Your task to perform on an android device: Check the weather Image 0: 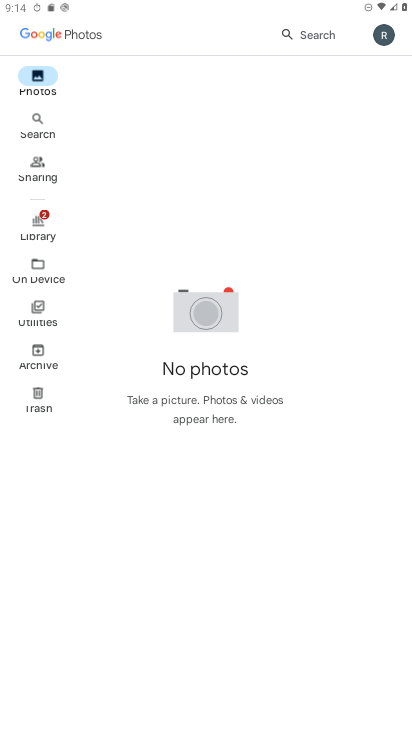
Step 0: press home button
Your task to perform on an android device: Check the weather Image 1: 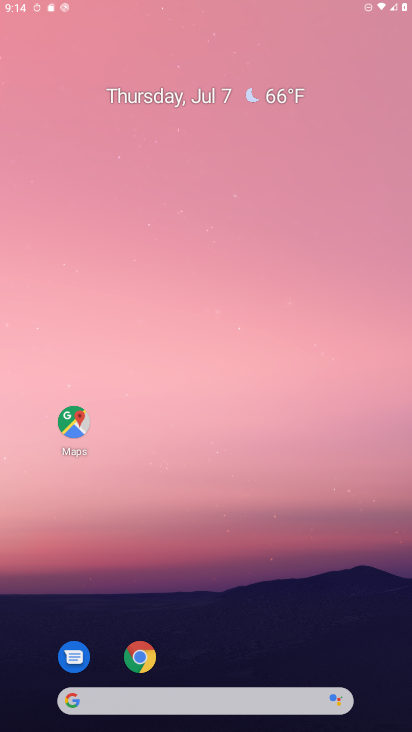
Step 1: drag from (391, 710) to (147, 8)
Your task to perform on an android device: Check the weather Image 2: 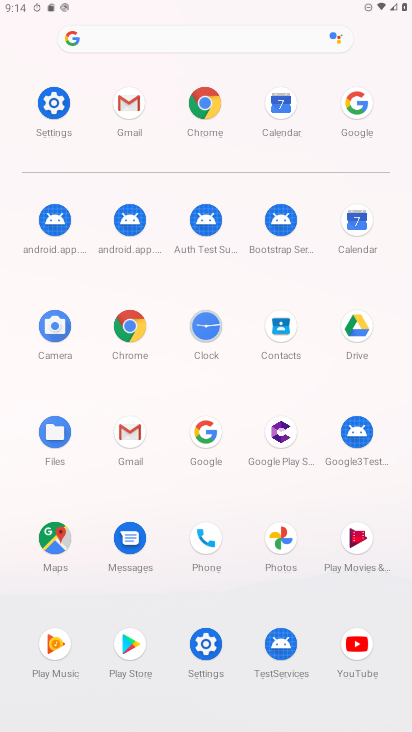
Step 2: click (204, 439)
Your task to perform on an android device: Check the weather Image 3: 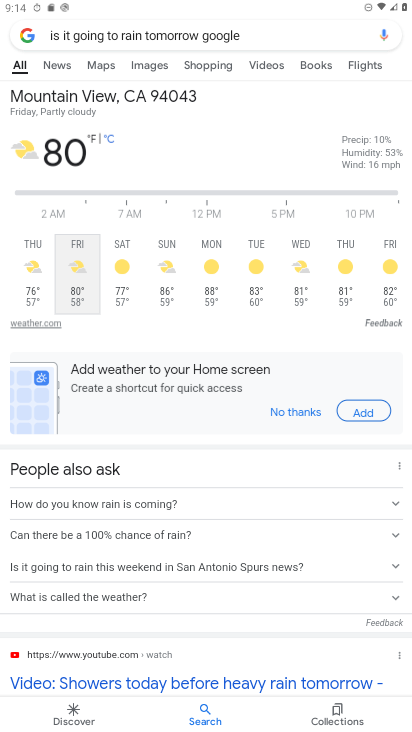
Step 3: press back button
Your task to perform on an android device: Check the weather Image 4: 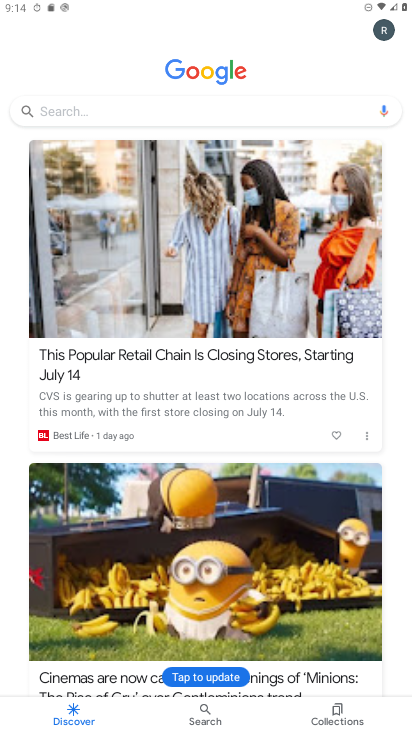
Step 4: click (108, 115)
Your task to perform on an android device: Check the weather Image 5: 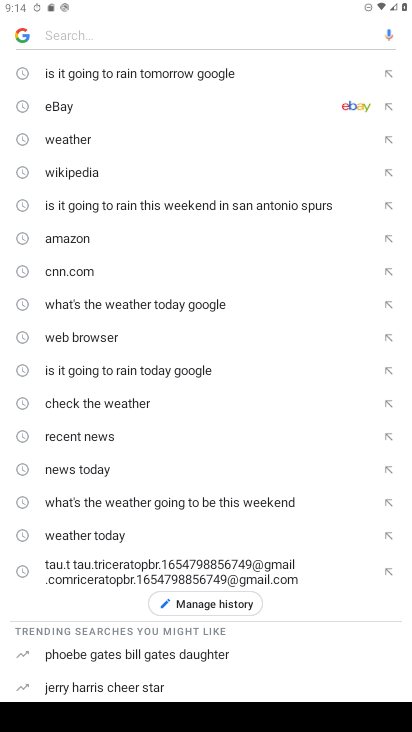
Step 5: click (103, 405)
Your task to perform on an android device: Check the weather Image 6: 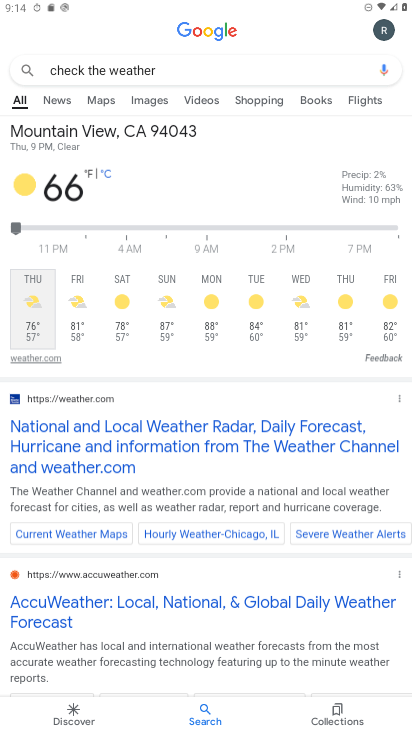
Step 6: task complete